Your task to perform on an android device: Go to location settings Image 0: 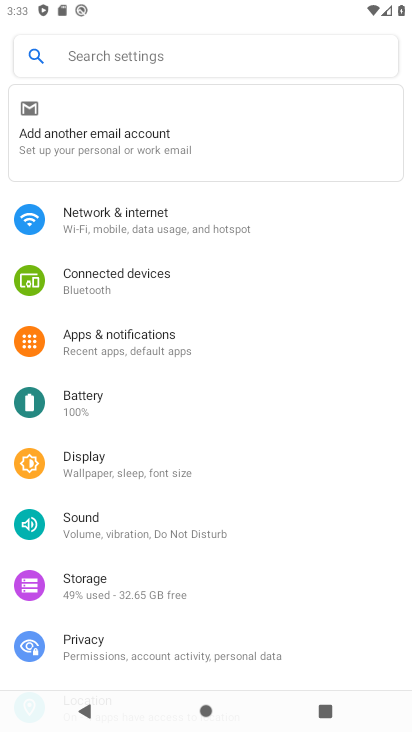
Step 0: drag from (147, 602) to (204, 207)
Your task to perform on an android device: Go to location settings Image 1: 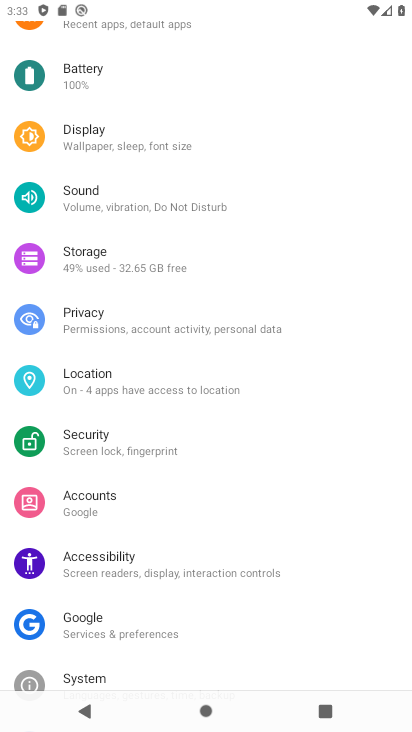
Step 1: click (102, 361)
Your task to perform on an android device: Go to location settings Image 2: 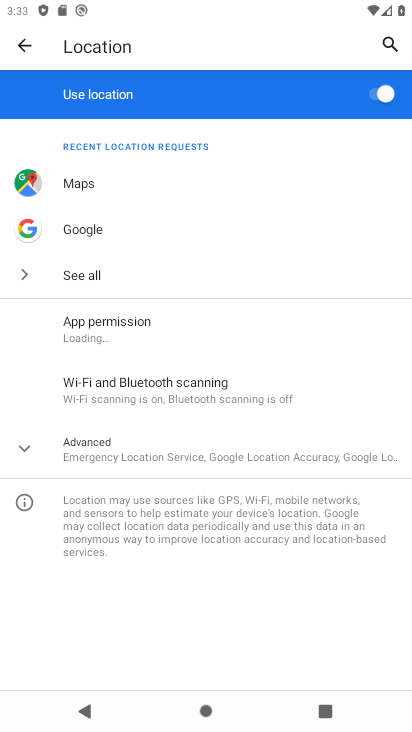
Step 2: task complete